Your task to perform on an android device: Go to sound settings Image 0: 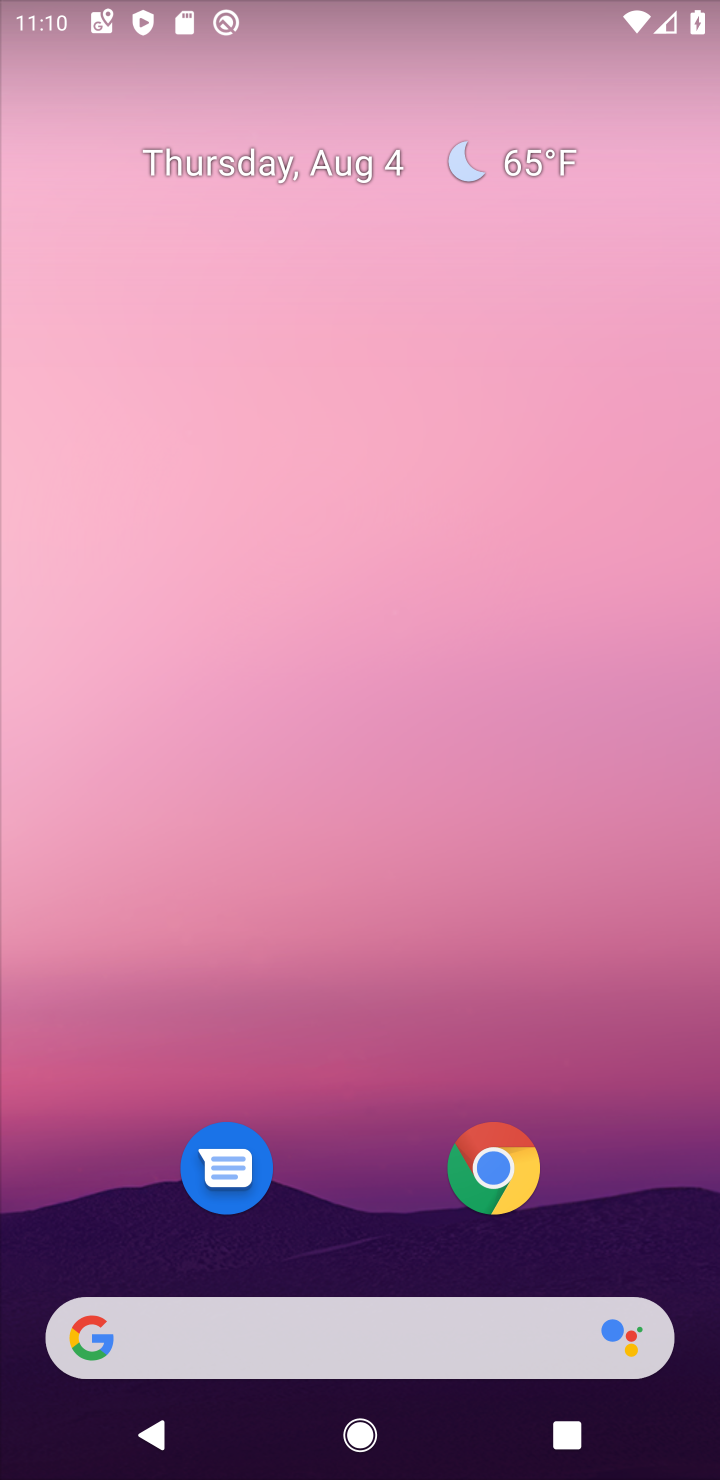
Step 0: drag from (618, 1078) to (393, 10)
Your task to perform on an android device: Go to sound settings Image 1: 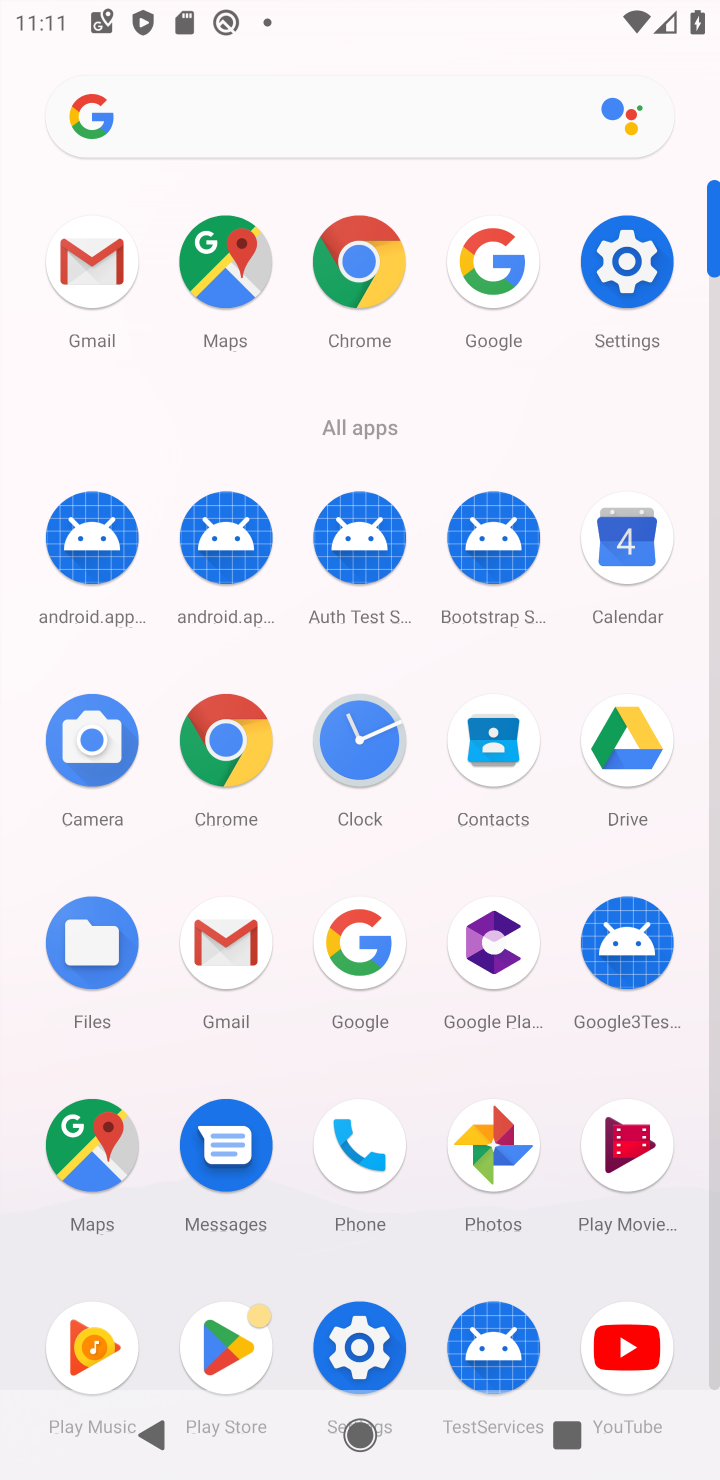
Step 1: click (353, 1370)
Your task to perform on an android device: Go to sound settings Image 2: 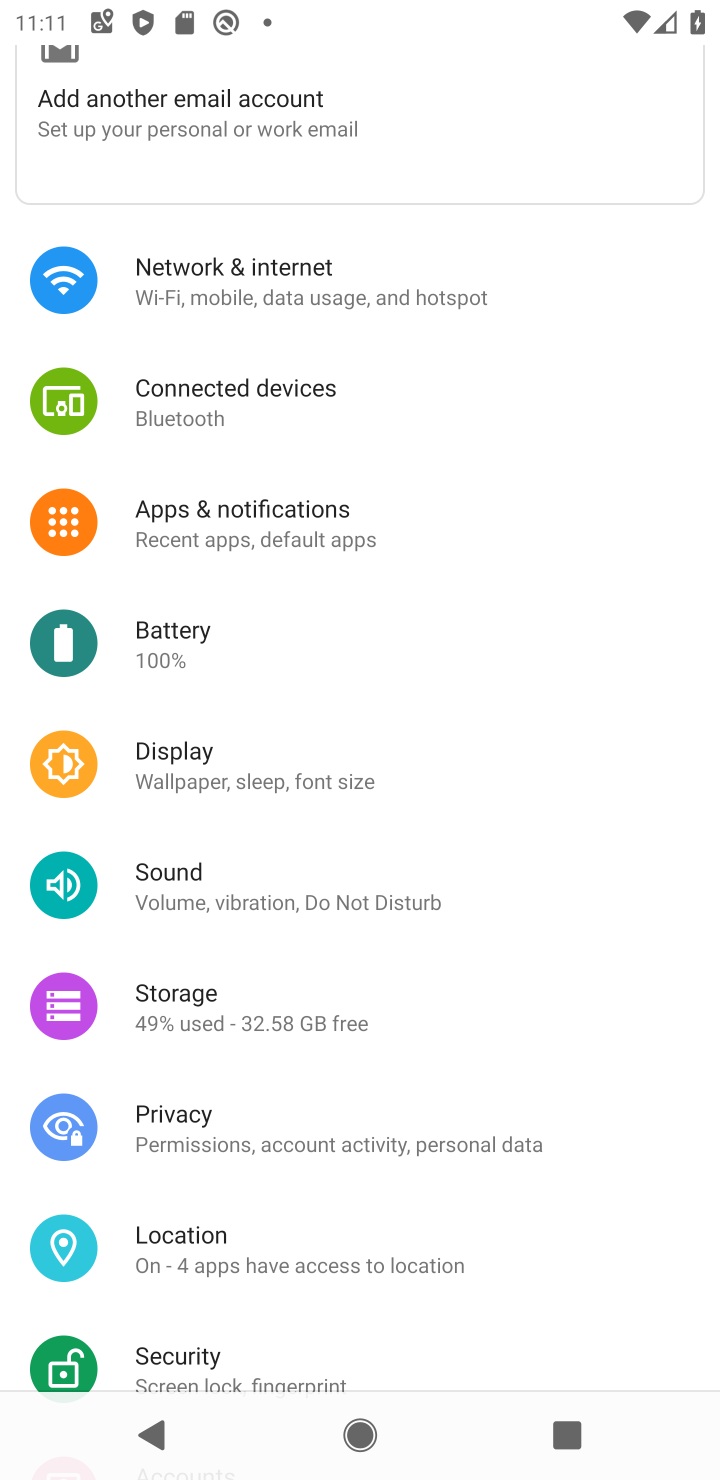
Step 2: click (189, 866)
Your task to perform on an android device: Go to sound settings Image 3: 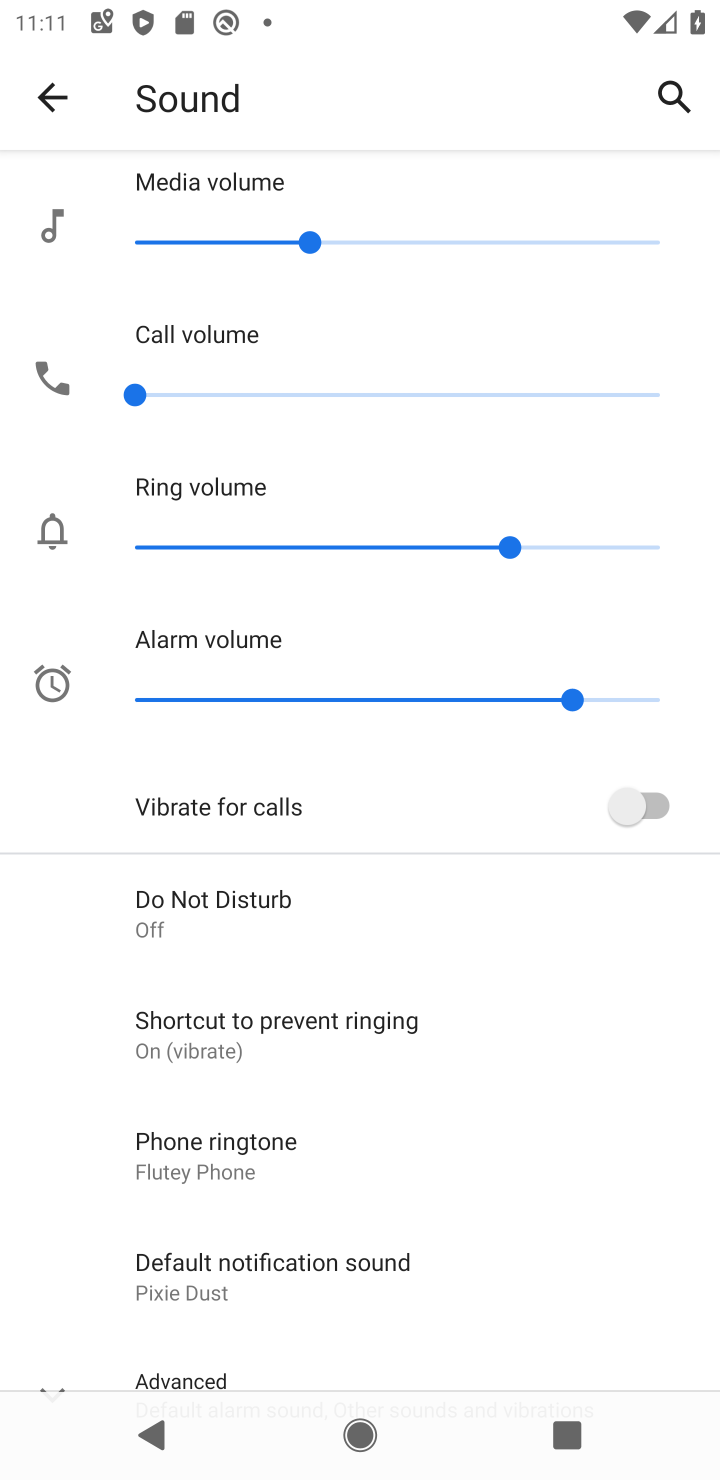
Step 3: task complete